Your task to perform on an android device: Open network settings Image 0: 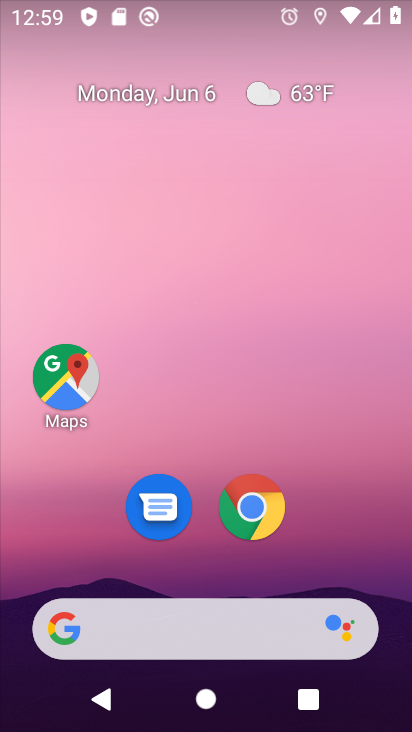
Step 0: drag from (225, 388) to (201, 6)
Your task to perform on an android device: Open network settings Image 1: 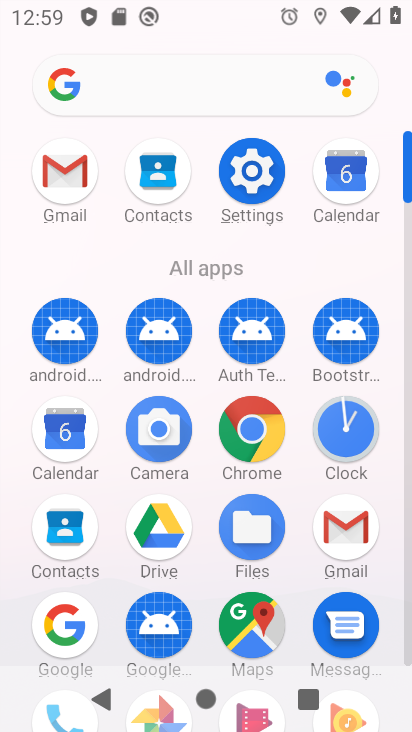
Step 1: click (233, 174)
Your task to perform on an android device: Open network settings Image 2: 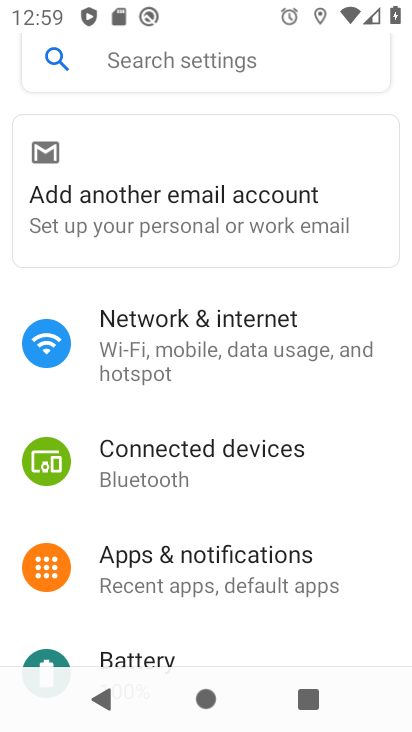
Step 2: click (271, 331)
Your task to perform on an android device: Open network settings Image 3: 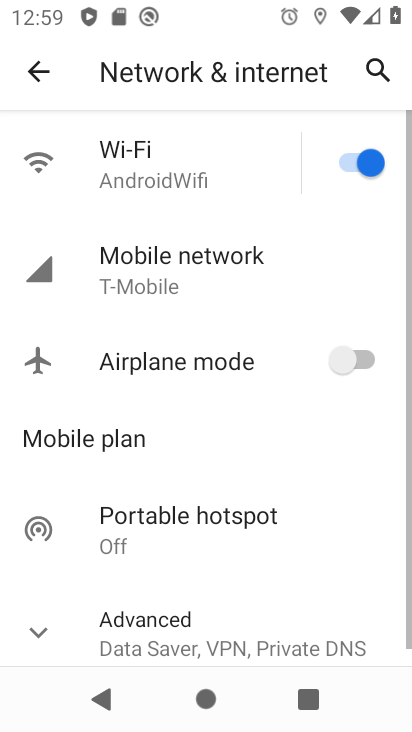
Step 3: task complete